Your task to perform on an android device: Turn on the flashlight Image 0: 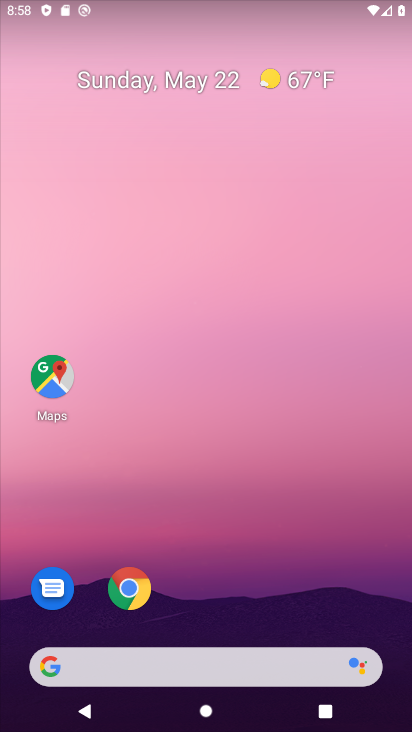
Step 0: drag from (208, 616) to (178, 132)
Your task to perform on an android device: Turn on the flashlight Image 1: 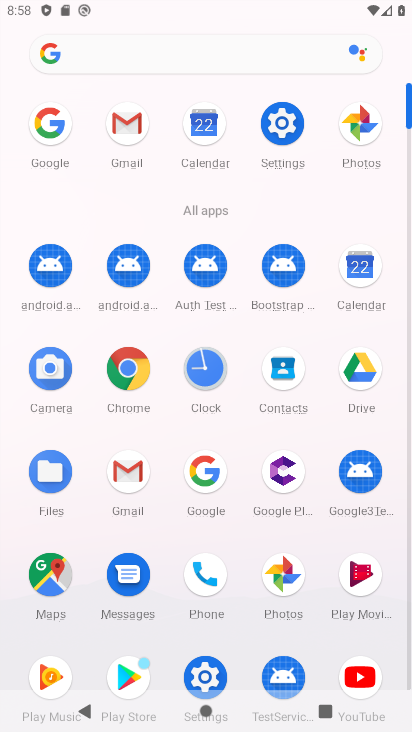
Step 1: click (265, 128)
Your task to perform on an android device: Turn on the flashlight Image 2: 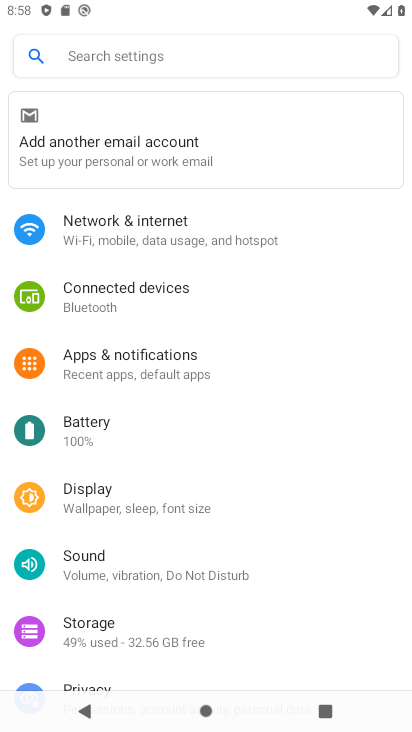
Step 2: task complete